Your task to perform on an android device: Open Chrome and go to settings Image 0: 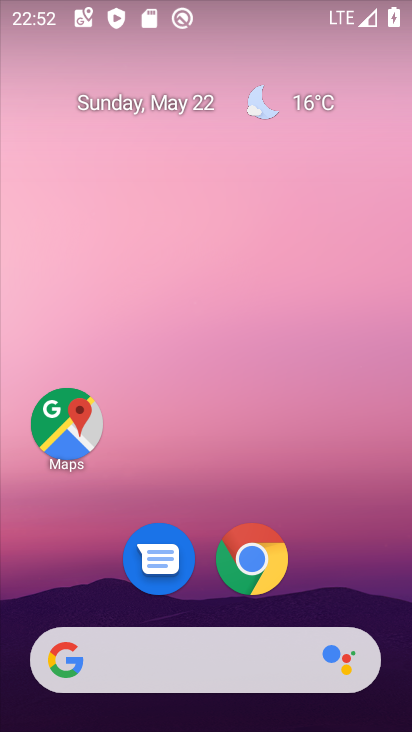
Step 0: click (265, 553)
Your task to perform on an android device: Open Chrome and go to settings Image 1: 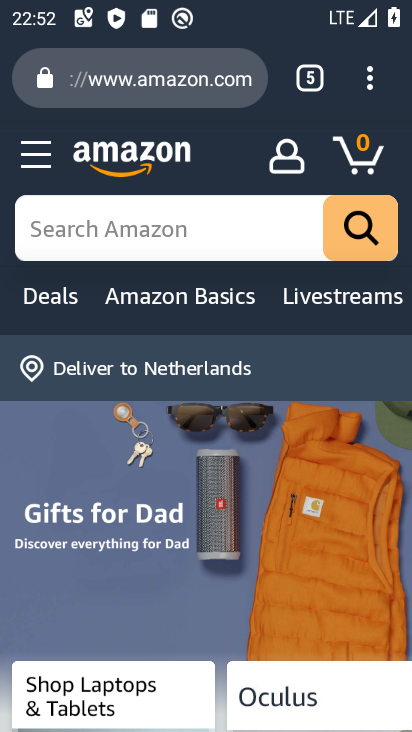
Step 1: click (380, 75)
Your task to perform on an android device: Open Chrome and go to settings Image 2: 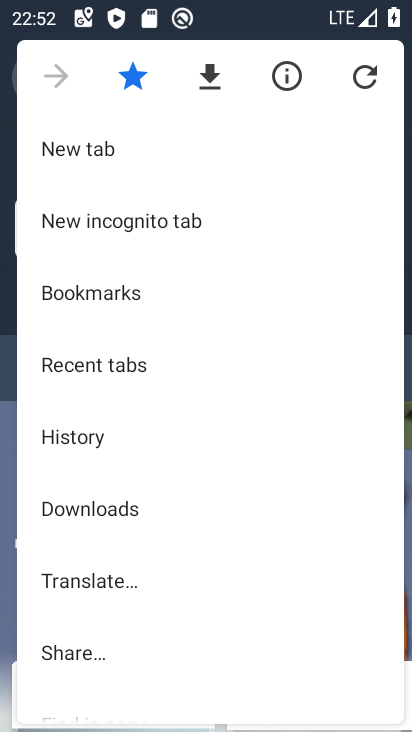
Step 2: drag from (142, 513) to (152, 159)
Your task to perform on an android device: Open Chrome and go to settings Image 3: 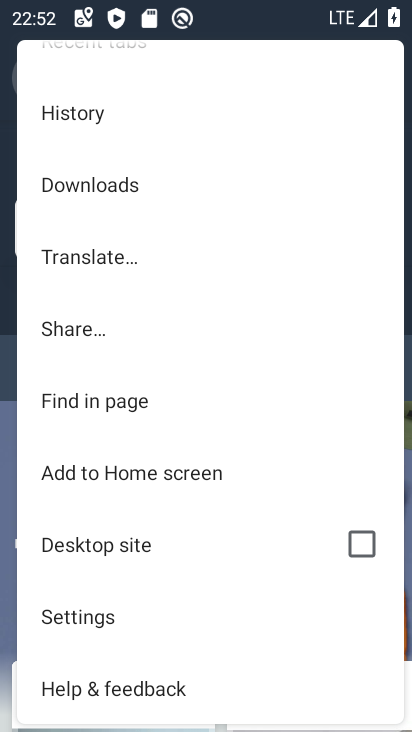
Step 3: click (115, 617)
Your task to perform on an android device: Open Chrome and go to settings Image 4: 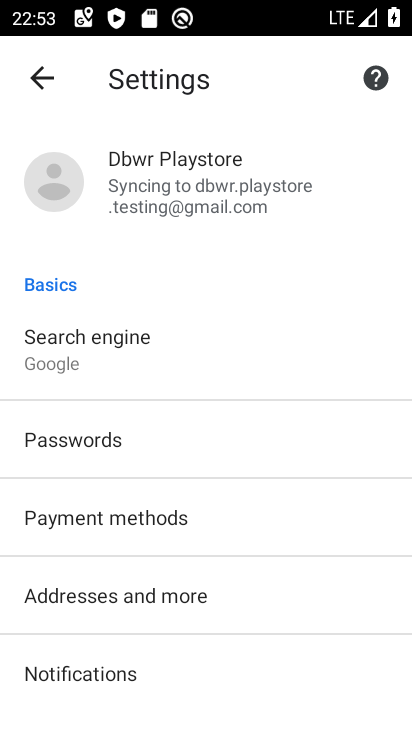
Step 4: task complete